Your task to perform on an android device: allow cookies in the chrome app Image 0: 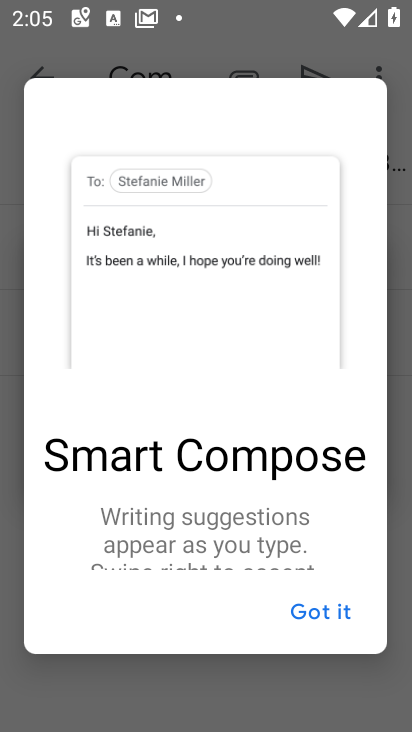
Step 0: press home button
Your task to perform on an android device: allow cookies in the chrome app Image 1: 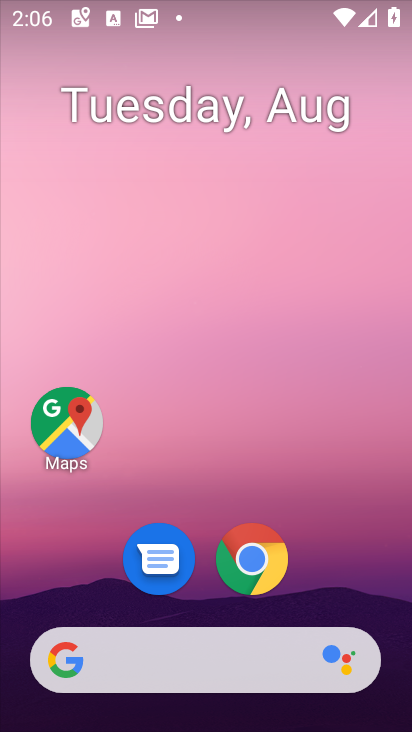
Step 1: click (254, 540)
Your task to perform on an android device: allow cookies in the chrome app Image 2: 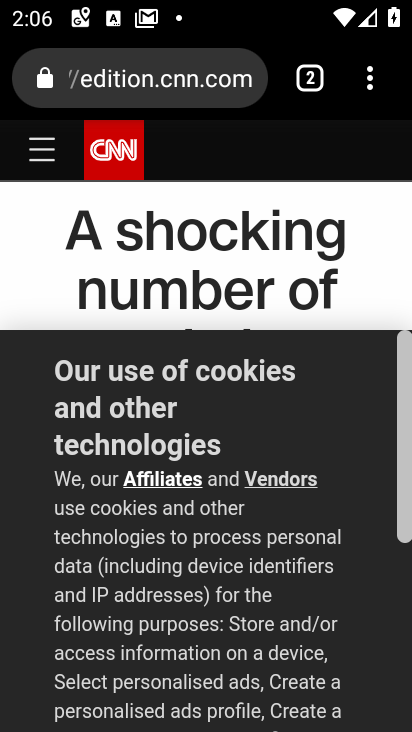
Step 2: click (375, 78)
Your task to perform on an android device: allow cookies in the chrome app Image 3: 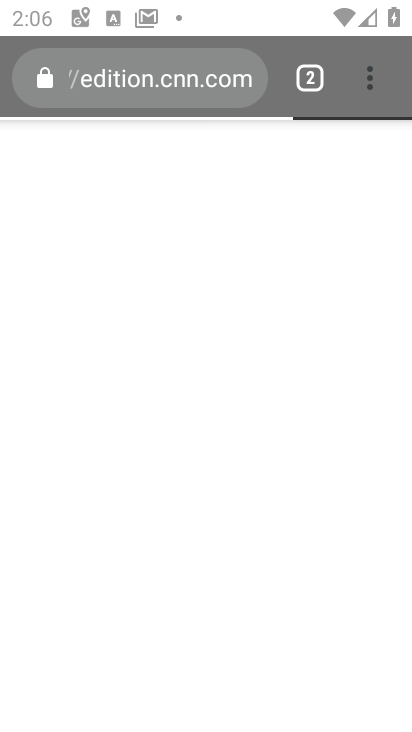
Step 3: click (375, 78)
Your task to perform on an android device: allow cookies in the chrome app Image 4: 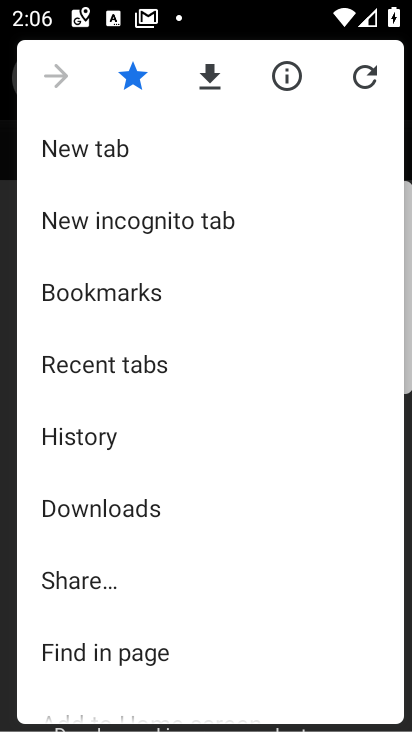
Step 4: drag from (161, 630) to (193, 275)
Your task to perform on an android device: allow cookies in the chrome app Image 5: 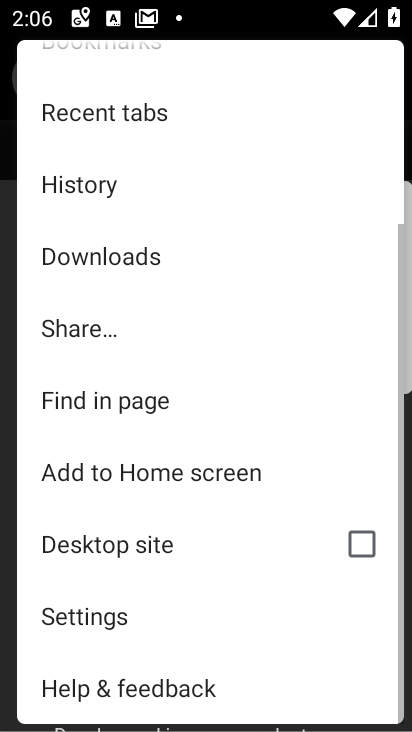
Step 5: click (142, 623)
Your task to perform on an android device: allow cookies in the chrome app Image 6: 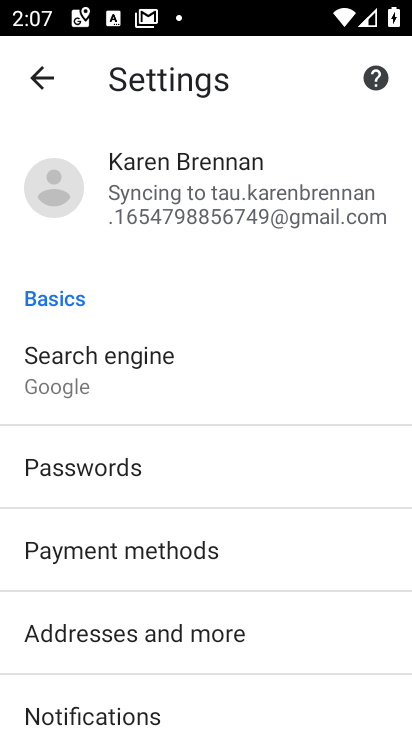
Step 6: drag from (197, 606) to (252, 309)
Your task to perform on an android device: allow cookies in the chrome app Image 7: 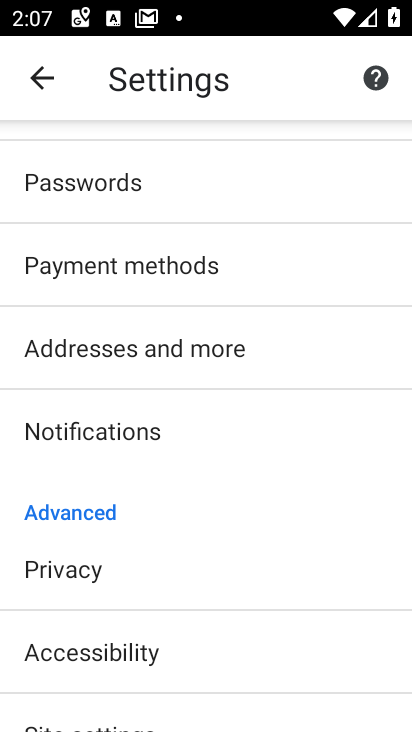
Step 7: drag from (162, 559) to (184, 353)
Your task to perform on an android device: allow cookies in the chrome app Image 8: 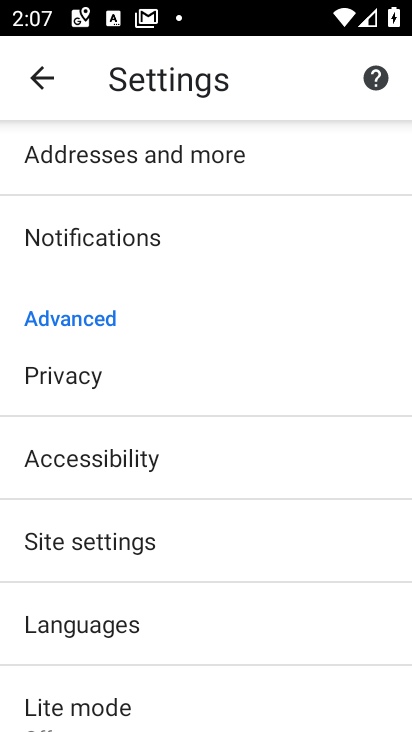
Step 8: click (171, 546)
Your task to perform on an android device: allow cookies in the chrome app Image 9: 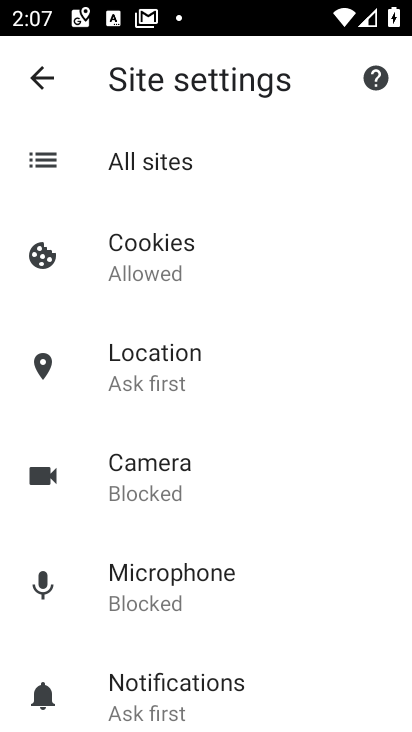
Step 9: click (186, 265)
Your task to perform on an android device: allow cookies in the chrome app Image 10: 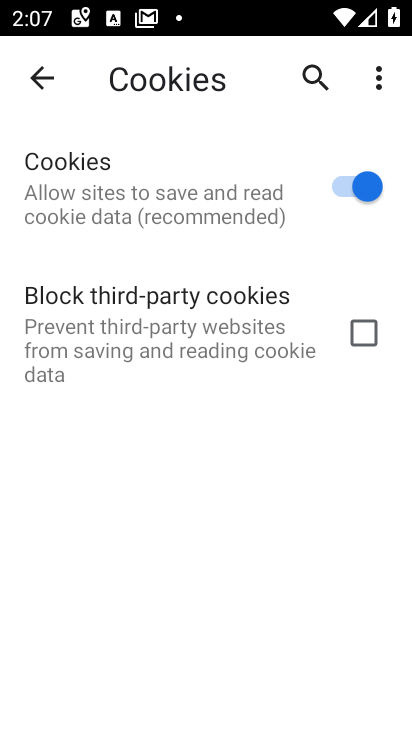
Step 10: task complete